Your task to perform on an android device: Go to Android settings Image 0: 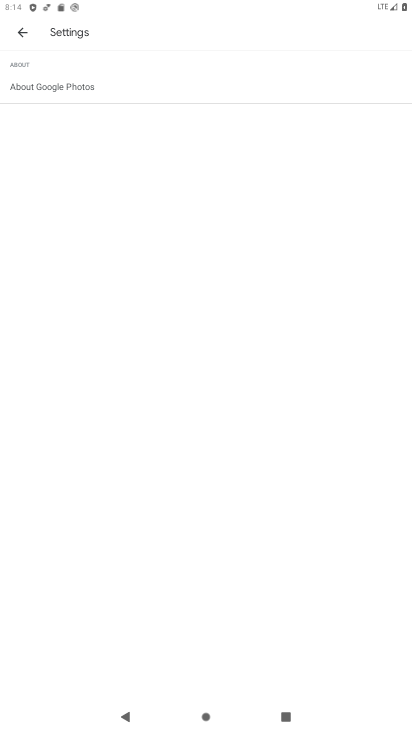
Step 0: press home button
Your task to perform on an android device: Go to Android settings Image 1: 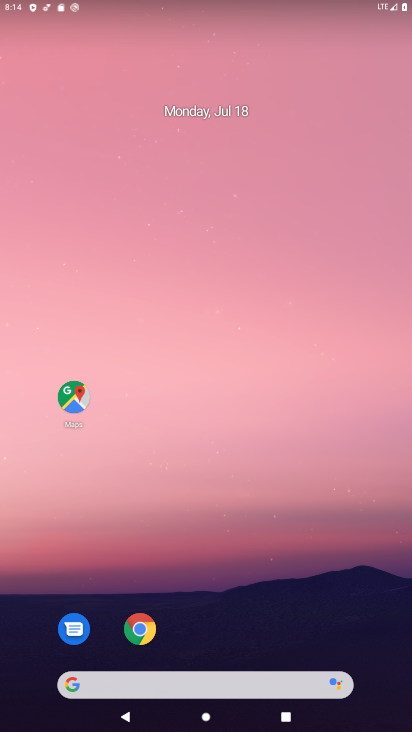
Step 1: drag from (227, 660) to (244, 52)
Your task to perform on an android device: Go to Android settings Image 2: 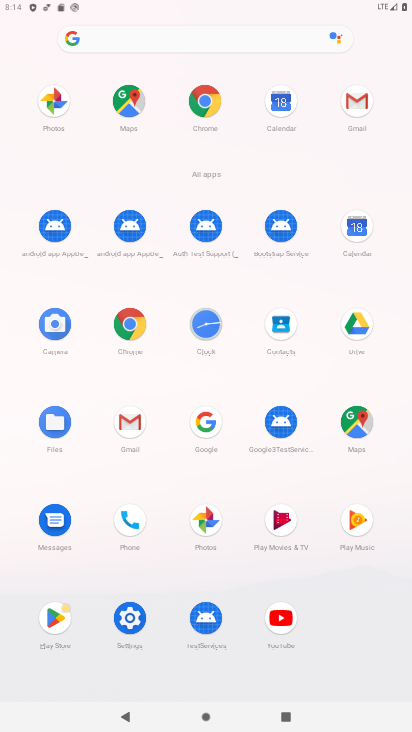
Step 2: click (131, 636)
Your task to perform on an android device: Go to Android settings Image 3: 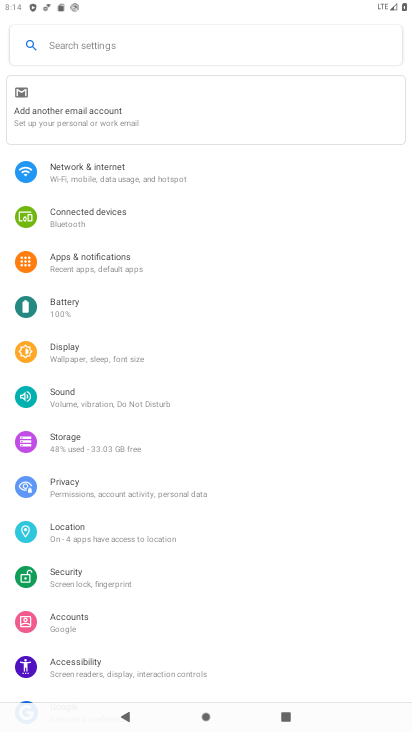
Step 3: drag from (129, 646) to (132, 444)
Your task to perform on an android device: Go to Android settings Image 4: 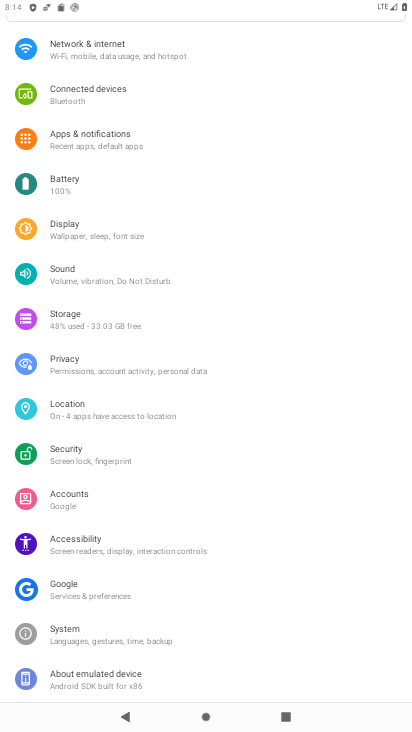
Step 4: click (106, 678)
Your task to perform on an android device: Go to Android settings Image 5: 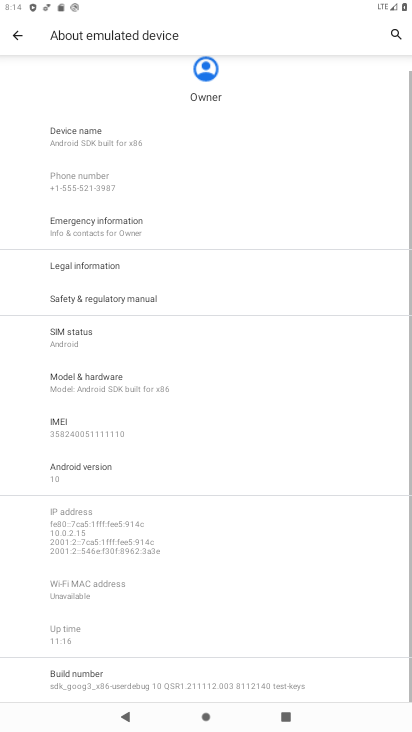
Step 5: click (96, 475)
Your task to perform on an android device: Go to Android settings Image 6: 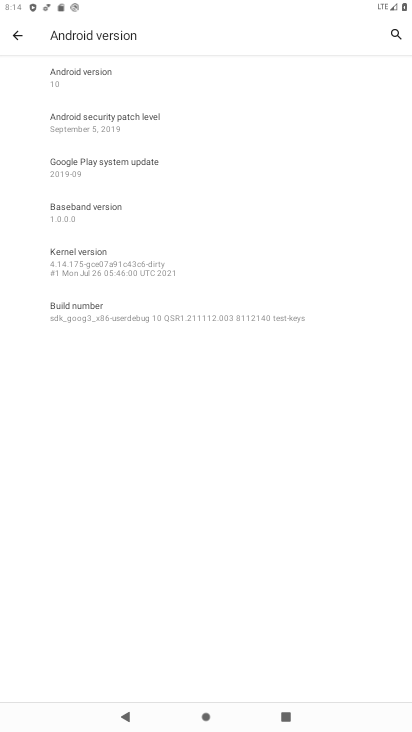
Step 6: task complete